Your task to perform on an android device: Play the last video I watched on Youtube Image 0: 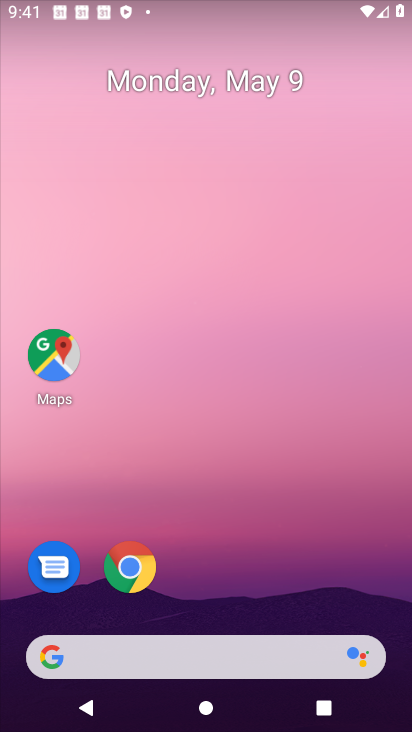
Step 0: drag from (192, 668) to (79, 59)
Your task to perform on an android device: Play the last video I watched on Youtube Image 1: 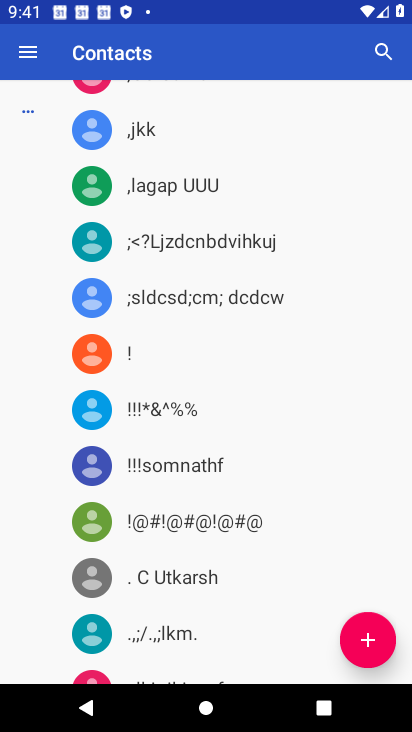
Step 1: press back button
Your task to perform on an android device: Play the last video I watched on Youtube Image 2: 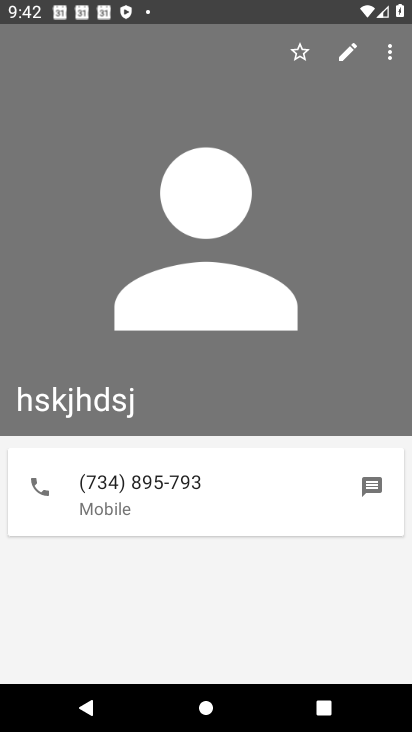
Step 2: press home button
Your task to perform on an android device: Play the last video I watched on Youtube Image 3: 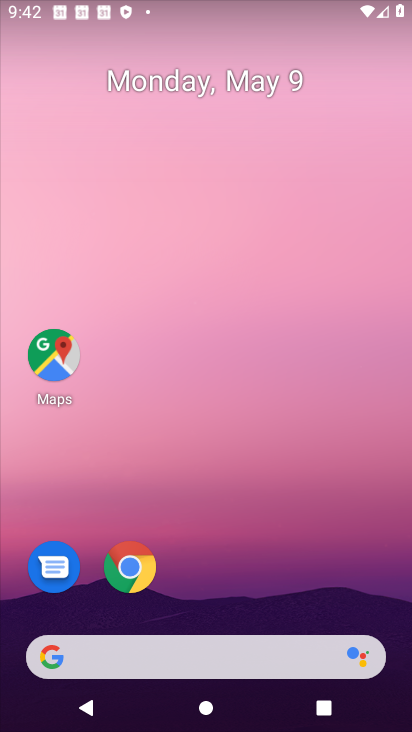
Step 3: drag from (193, 652) to (186, 209)
Your task to perform on an android device: Play the last video I watched on Youtube Image 4: 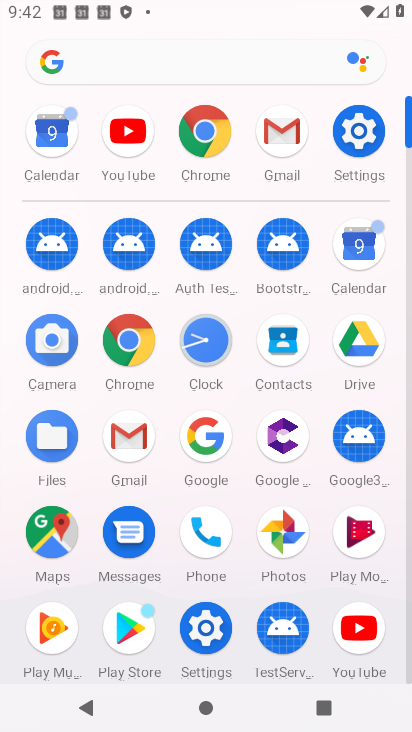
Step 4: click (352, 630)
Your task to perform on an android device: Play the last video I watched on Youtube Image 5: 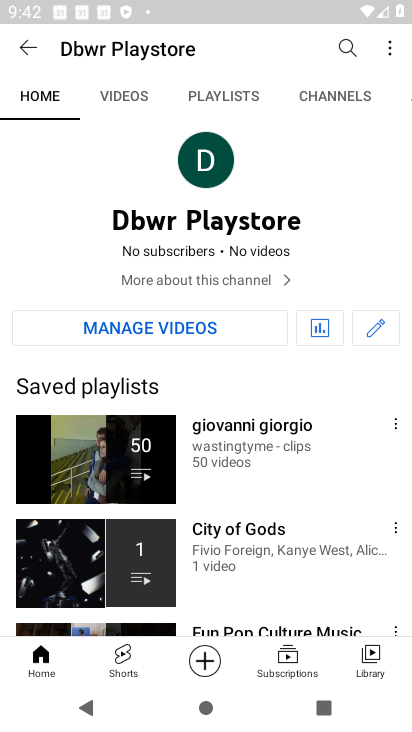
Step 5: drag from (367, 655) to (267, 655)
Your task to perform on an android device: Play the last video I watched on Youtube Image 6: 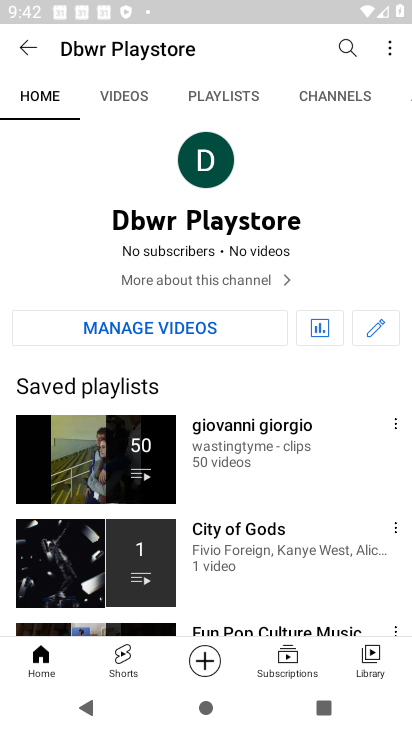
Step 6: click (368, 643)
Your task to perform on an android device: Play the last video I watched on Youtube Image 7: 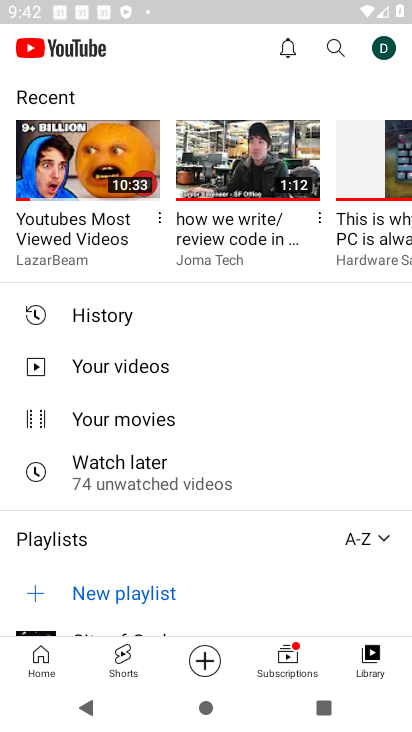
Step 7: click (92, 322)
Your task to perform on an android device: Play the last video I watched on Youtube Image 8: 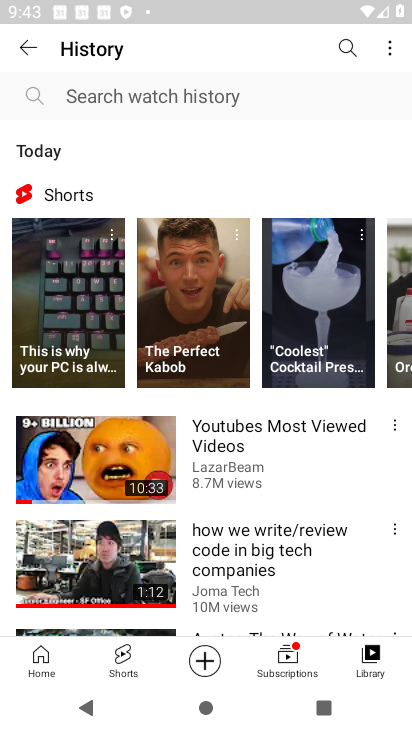
Step 8: click (203, 462)
Your task to perform on an android device: Play the last video I watched on Youtube Image 9: 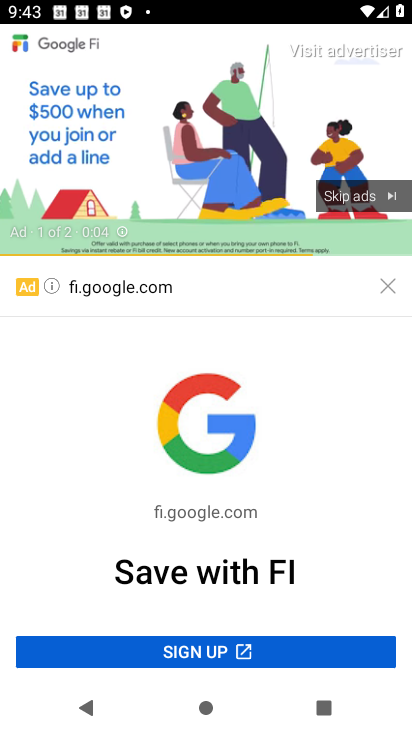
Step 9: click (363, 198)
Your task to perform on an android device: Play the last video I watched on Youtube Image 10: 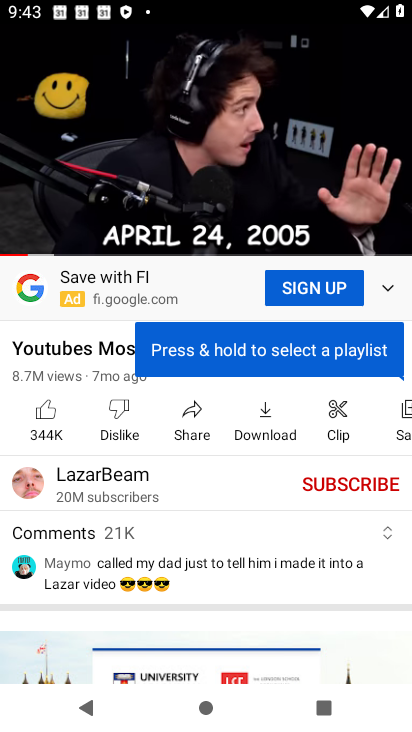
Step 10: task complete